Your task to perform on an android device: Open settings on Google Maps Image 0: 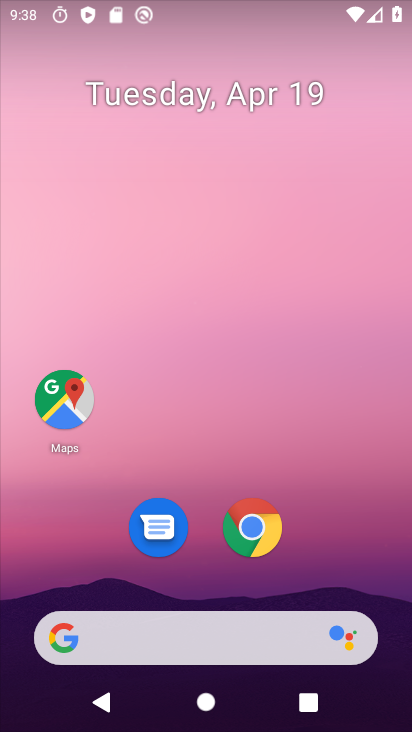
Step 0: drag from (234, 676) to (260, 207)
Your task to perform on an android device: Open settings on Google Maps Image 1: 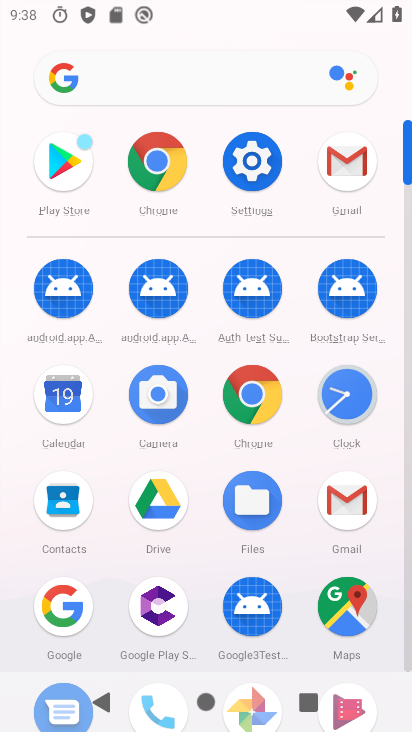
Step 1: click (348, 595)
Your task to perform on an android device: Open settings on Google Maps Image 2: 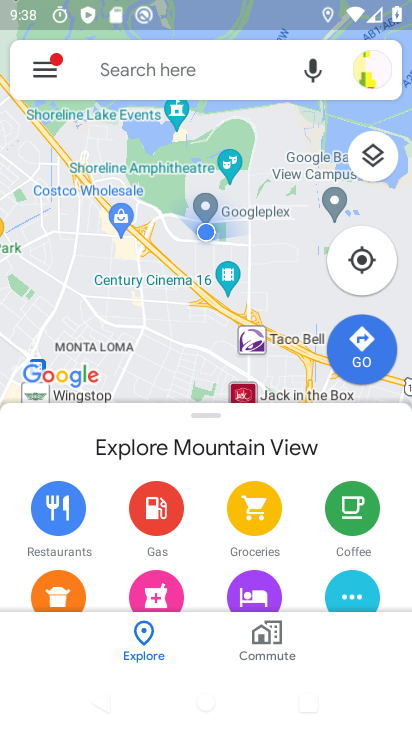
Step 2: click (360, 259)
Your task to perform on an android device: Open settings on Google Maps Image 3: 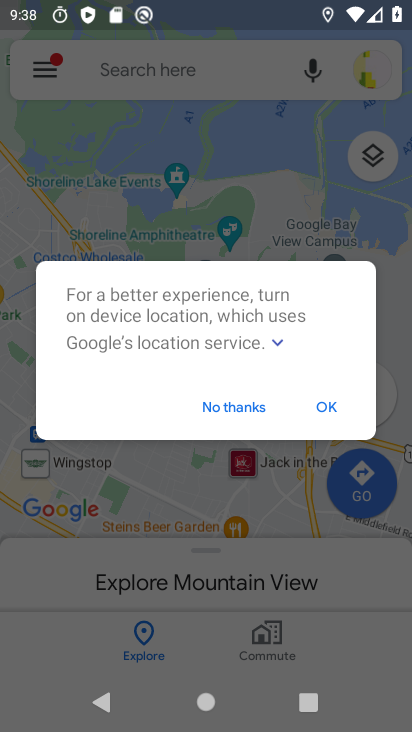
Step 3: task complete